Your task to perform on an android device: Turn on the flashlight Image 0: 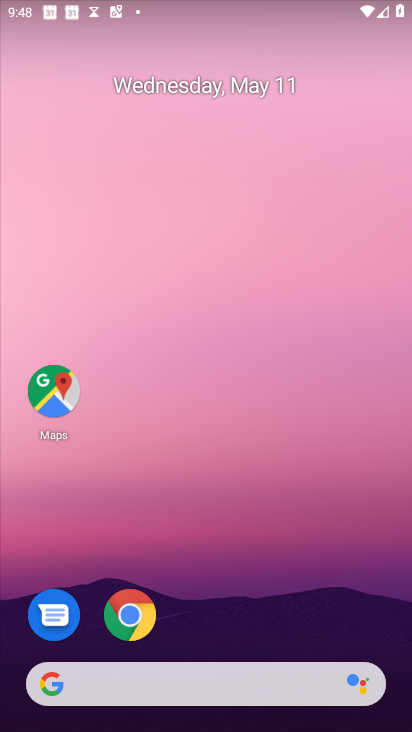
Step 0: drag from (250, 610) to (295, 167)
Your task to perform on an android device: Turn on the flashlight Image 1: 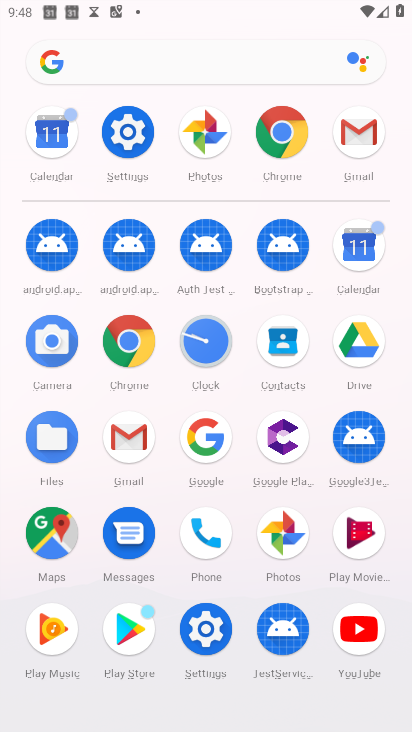
Step 1: click (117, 134)
Your task to perform on an android device: Turn on the flashlight Image 2: 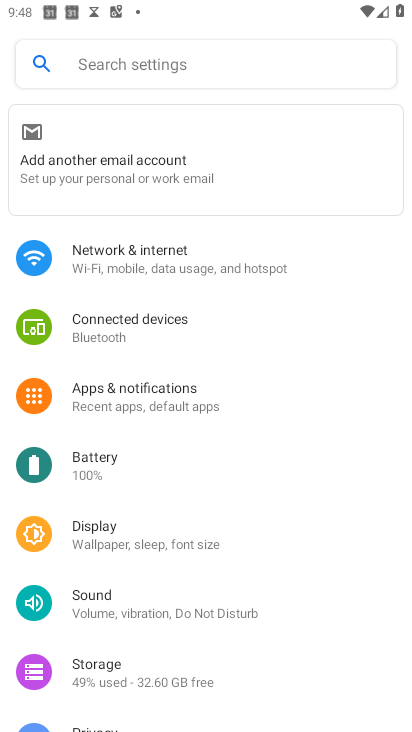
Step 2: task complete